Your task to perform on an android device: turn on showing notifications on the lock screen Image 0: 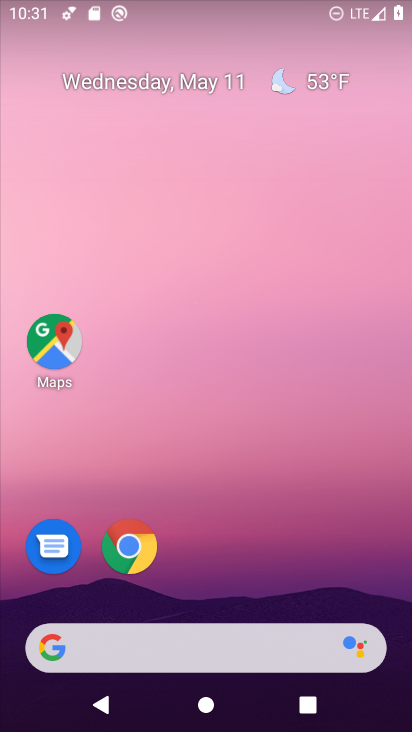
Step 0: drag from (401, 612) to (264, 23)
Your task to perform on an android device: turn on showing notifications on the lock screen Image 1: 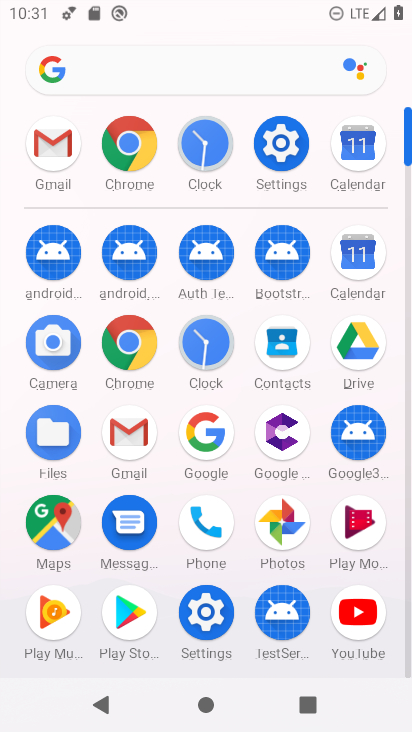
Step 1: click (218, 630)
Your task to perform on an android device: turn on showing notifications on the lock screen Image 2: 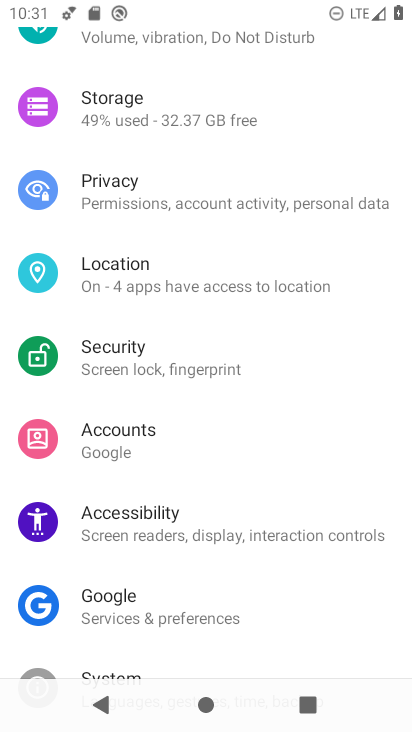
Step 2: drag from (120, 129) to (170, 674)
Your task to perform on an android device: turn on showing notifications on the lock screen Image 3: 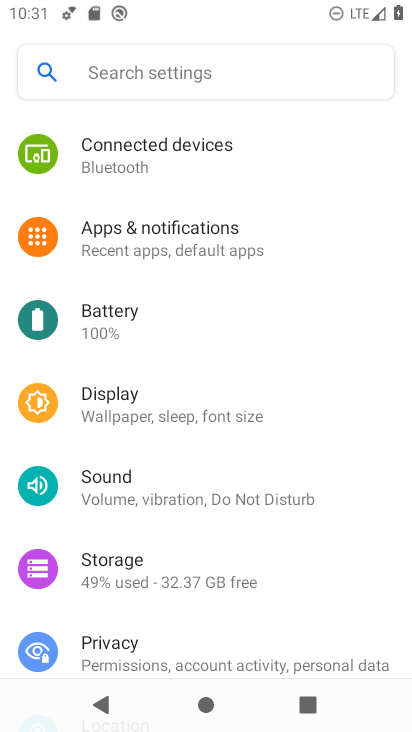
Step 3: click (225, 224)
Your task to perform on an android device: turn on showing notifications on the lock screen Image 4: 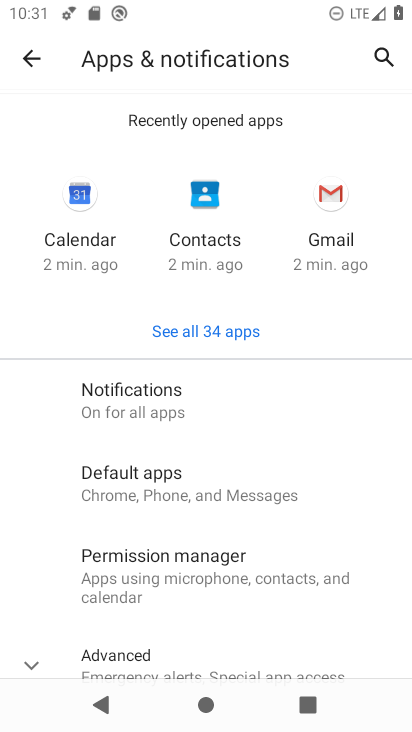
Step 4: drag from (192, 613) to (241, 265)
Your task to perform on an android device: turn on showing notifications on the lock screen Image 5: 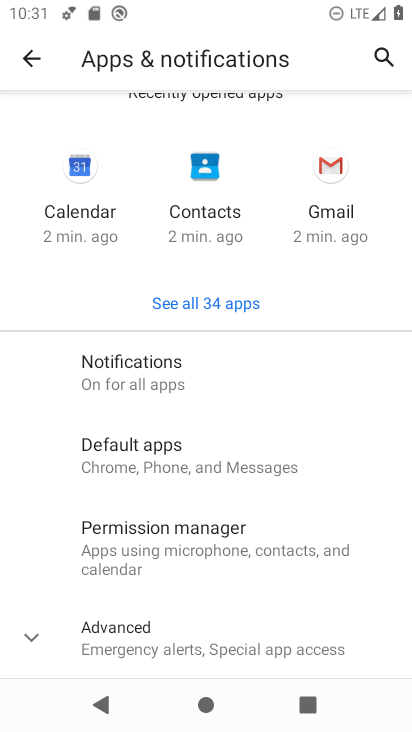
Step 5: click (87, 633)
Your task to perform on an android device: turn on showing notifications on the lock screen Image 6: 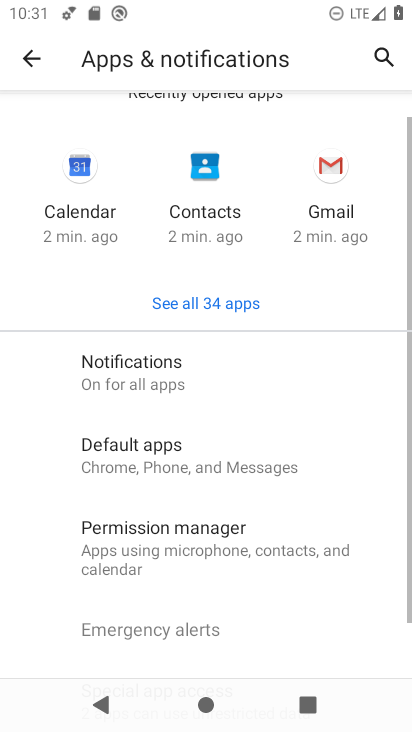
Step 6: drag from (87, 633) to (190, 358)
Your task to perform on an android device: turn on showing notifications on the lock screen Image 7: 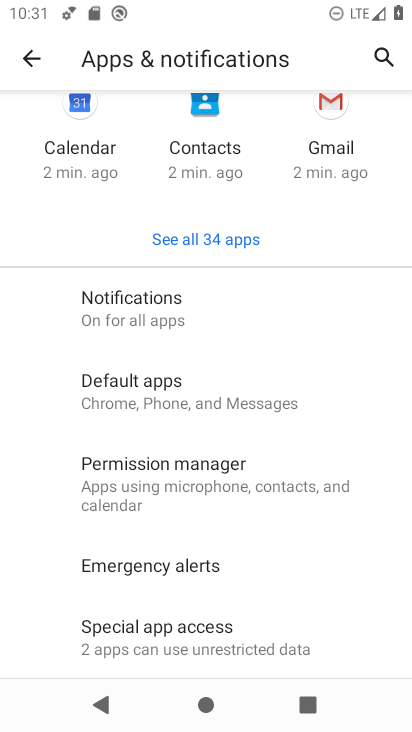
Step 7: click (142, 314)
Your task to perform on an android device: turn on showing notifications on the lock screen Image 8: 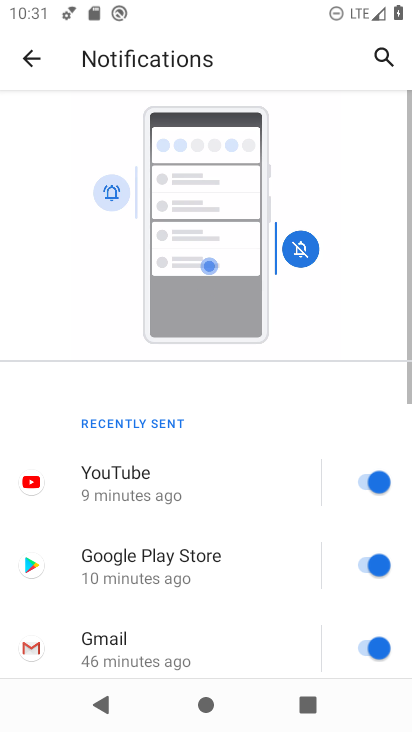
Step 8: drag from (193, 592) to (272, 55)
Your task to perform on an android device: turn on showing notifications on the lock screen Image 9: 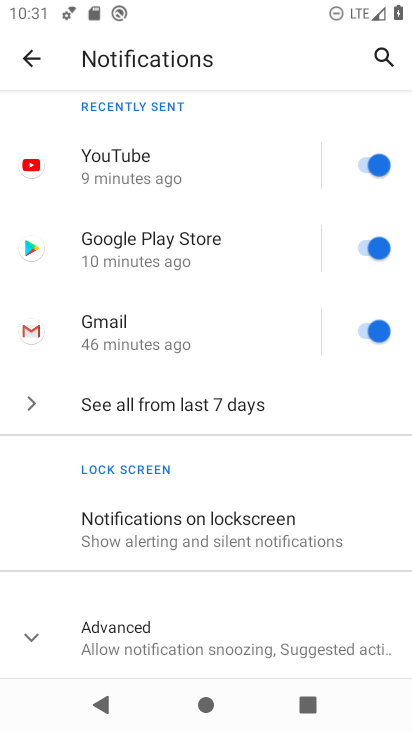
Step 9: click (178, 508)
Your task to perform on an android device: turn on showing notifications on the lock screen Image 10: 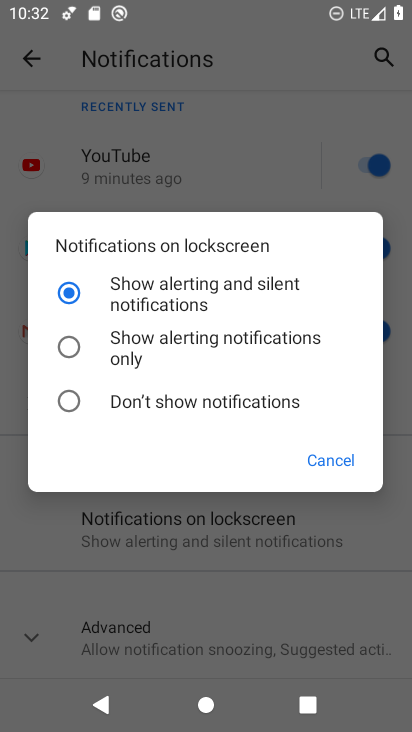
Step 10: task complete